Your task to perform on an android device: turn off priority inbox in the gmail app Image 0: 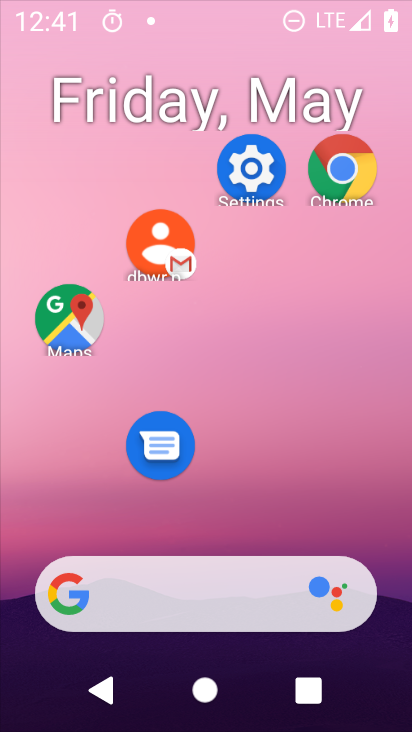
Step 0: click (251, 39)
Your task to perform on an android device: turn off priority inbox in the gmail app Image 1: 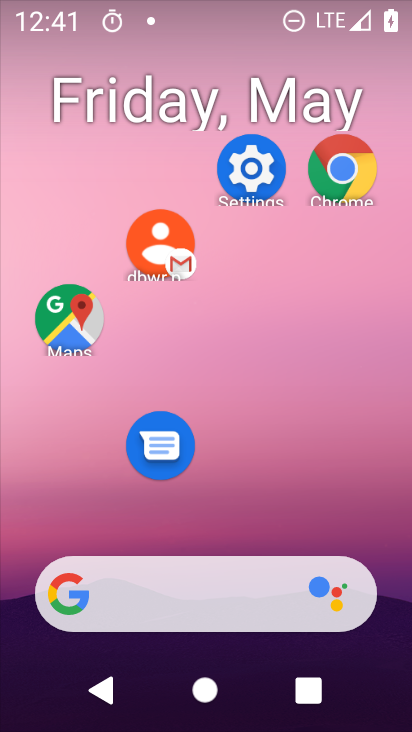
Step 1: drag from (221, 506) to (223, 24)
Your task to perform on an android device: turn off priority inbox in the gmail app Image 2: 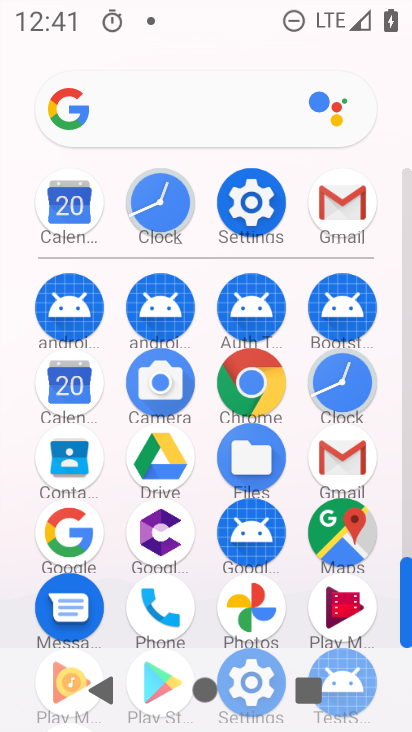
Step 2: click (346, 454)
Your task to perform on an android device: turn off priority inbox in the gmail app Image 3: 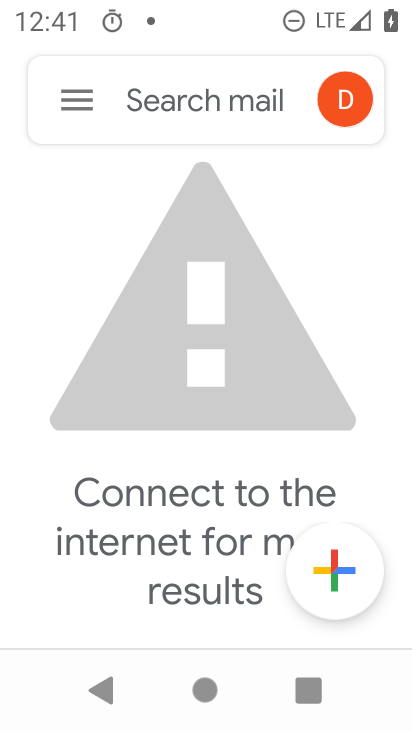
Step 3: drag from (219, 544) to (229, 166)
Your task to perform on an android device: turn off priority inbox in the gmail app Image 4: 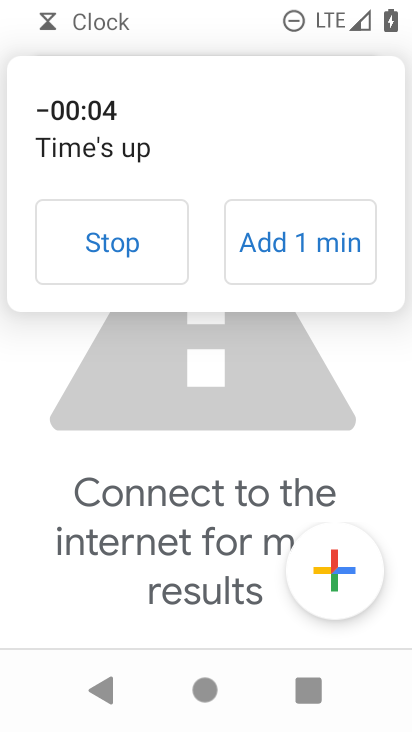
Step 4: click (129, 249)
Your task to perform on an android device: turn off priority inbox in the gmail app Image 5: 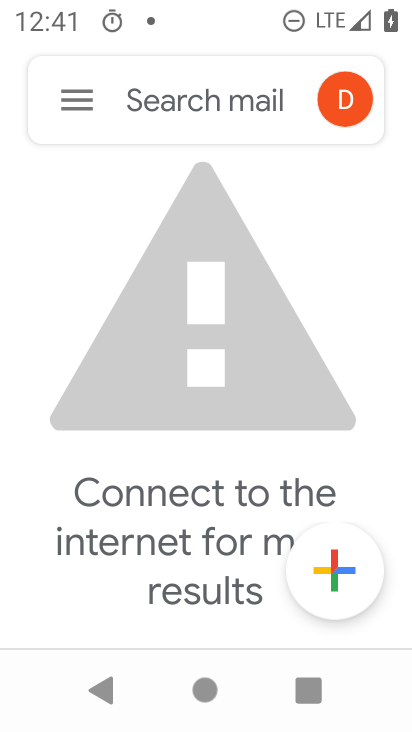
Step 5: click (63, 93)
Your task to perform on an android device: turn off priority inbox in the gmail app Image 6: 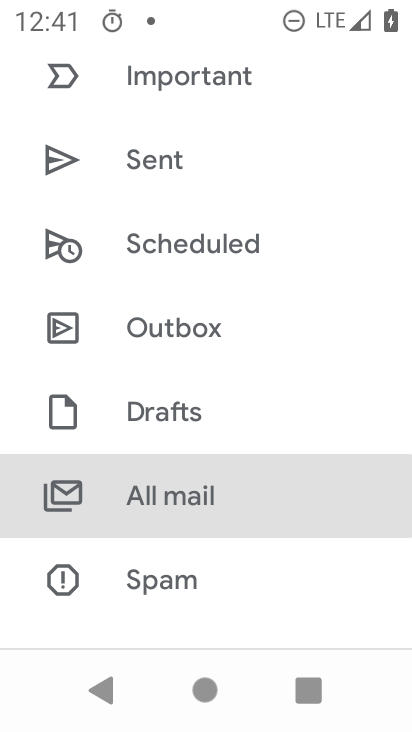
Step 6: drag from (270, 453) to (295, 251)
Your task to perform on an android device: turn off priority inbox in the gmail app Image 7: 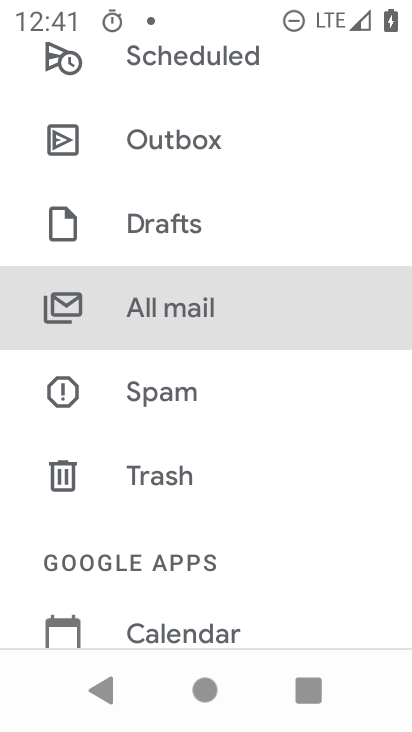
Step 7: drag from (190, 506) to (209, 182)
Your task to perform on an android device: turn off priority inbox in the gmail app Image 8: 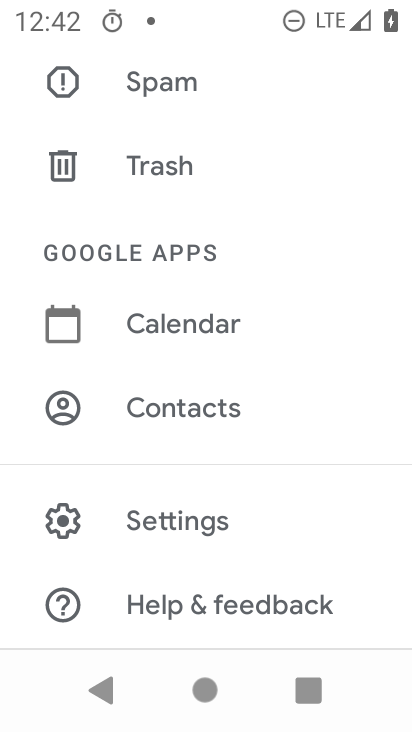
Step 8: drag from (177, 543) to (224, 155)
Your task to perform on an android device: turn off priority inbox in the gmail app Image 9: 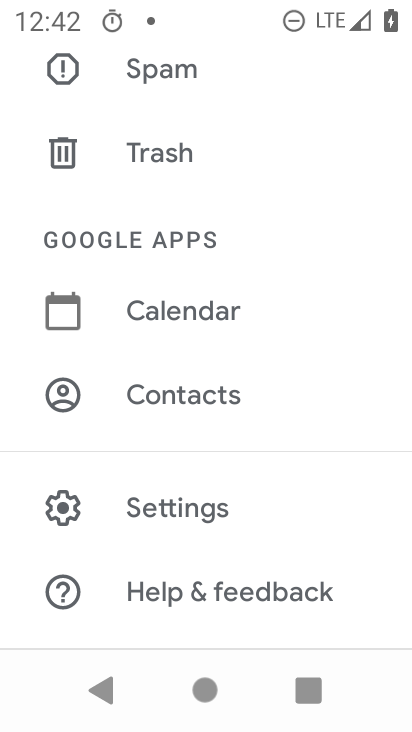
Step 9: click (219, 509)
Your task to perform on an android device: turn off priority inbox in the gmail app Image 10: 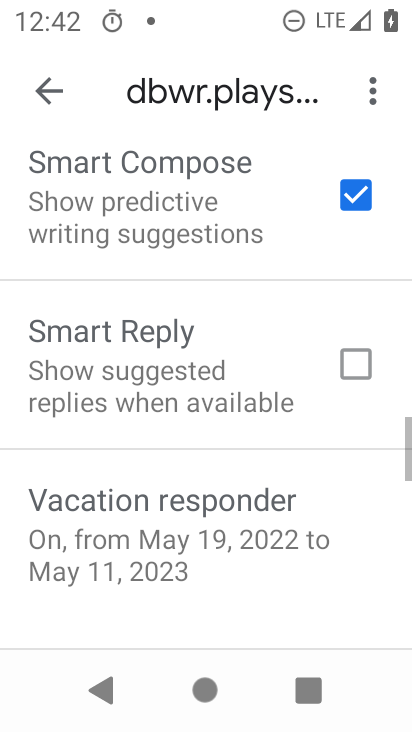
Step 10: drag from (164, 569) to (218, 241)
Your task to perform on an android device: turn off priority inbox in the gmail app Image 11: 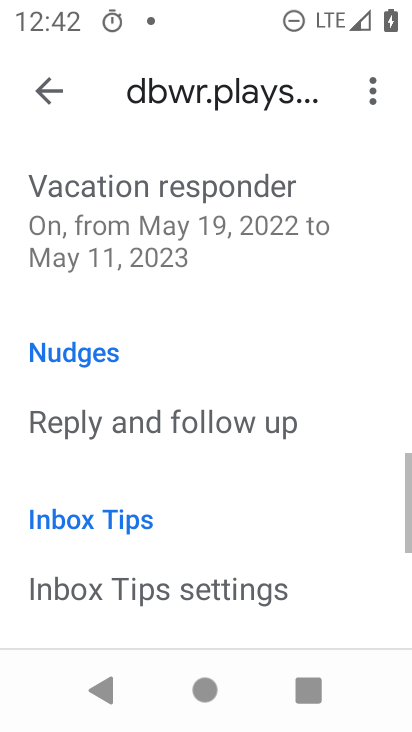
Step 11: drag from (213, 226) to (244, 730)
Your task to perform on an android device: turn off priority inbox in the gmail app Image 12: 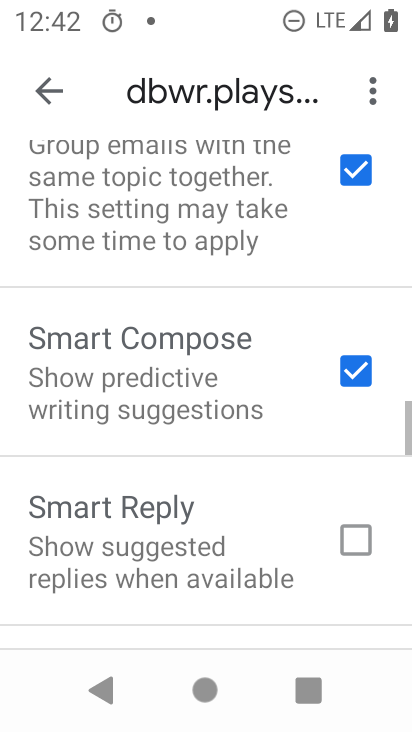
Step 12: drag from (228, 274) to (326, 687)
Your task to perform on an android device: turn off priority inbox in the gmail app Image 13: 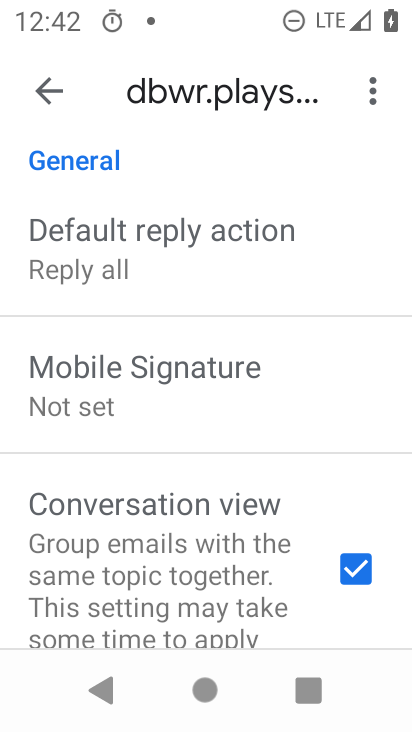
Step 13: drag from (178, 267) to (345, 725)
Your task to perform on an android device: turn off priority inbox in the gmail app Image 14: 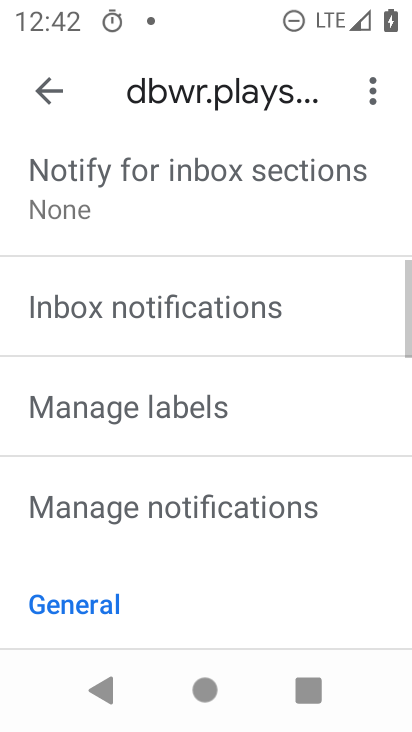
Step 14: drag from (210, 323) to (367, 698)
Your task to perform on an android device: turn off priority inbox in the gmail app Image 15: 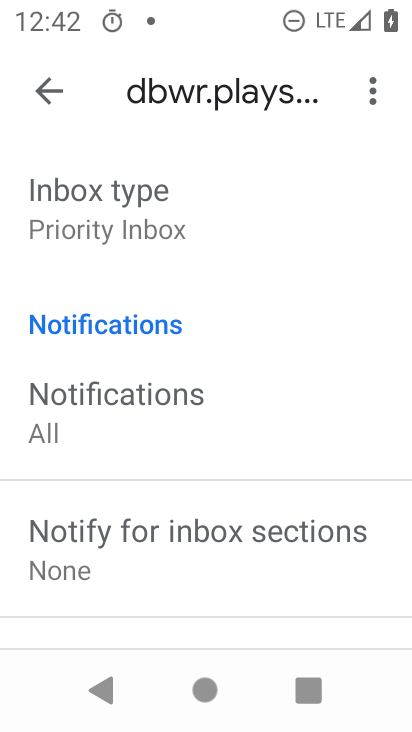
Step 15: drag from (222, 251) to (392, 657)
Your task to perform on an android device: turn off priority inbox in the gmail app Image 16: 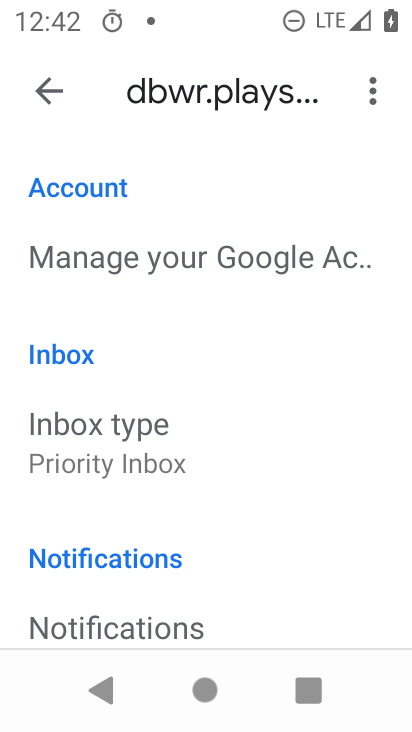
Step 16: drag from (208, 519) to (227, 306)
Your task to perform on an android device: turn off priority inbox in the gmail app Image 17: 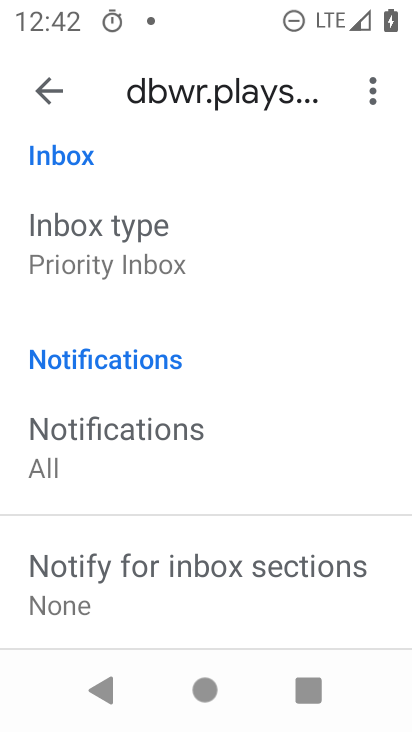
Step 17: click (126, 243)
Your task to perform on an android device: turn off priority inbox in the gmail app Image 18: 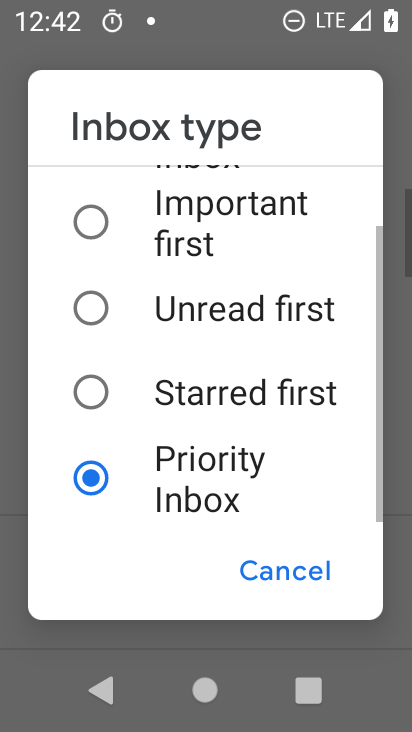
Step 18: drag from (155, 214) to (269, 621)
Your task to perform on an android device: turn off priority inbox in the gmail app Image 19: 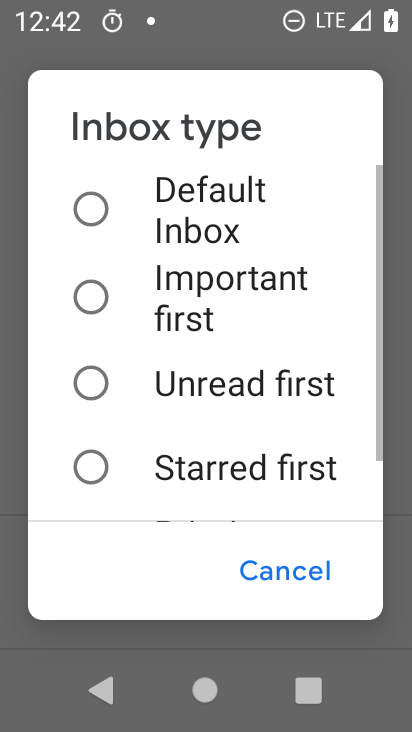
Step 19: click (141, 197)
Your task to perform on an android device: turn off priority inbox in the gmail app Image 20: 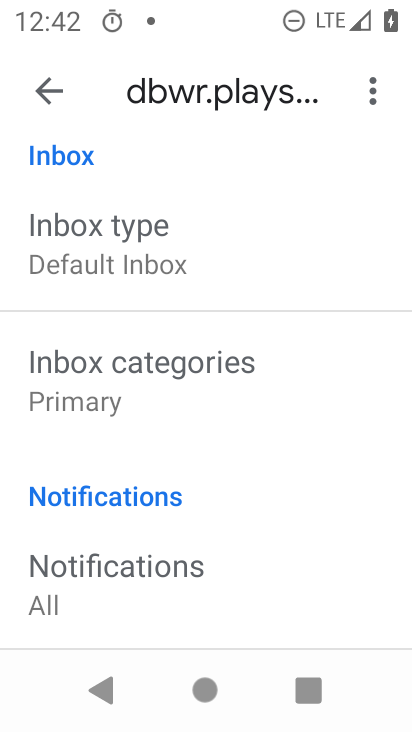
Step 20: task complete